Your task to perform on an android device: Go to Reddit.com Image 0: 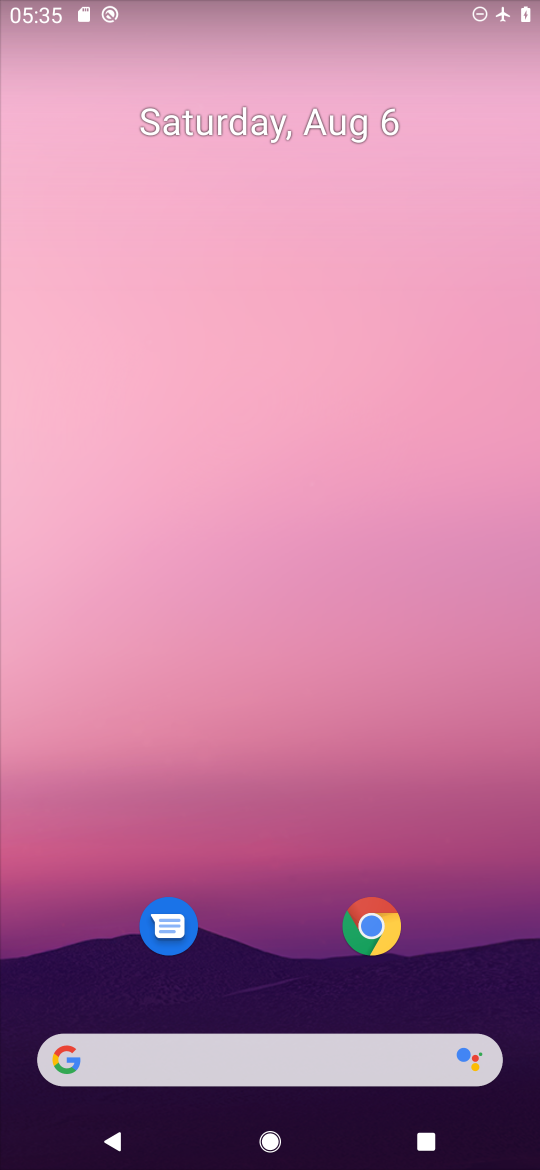
Step 0: click (372, 950)
Your task to perform on an android device: Go to Reddit.com Image 1: 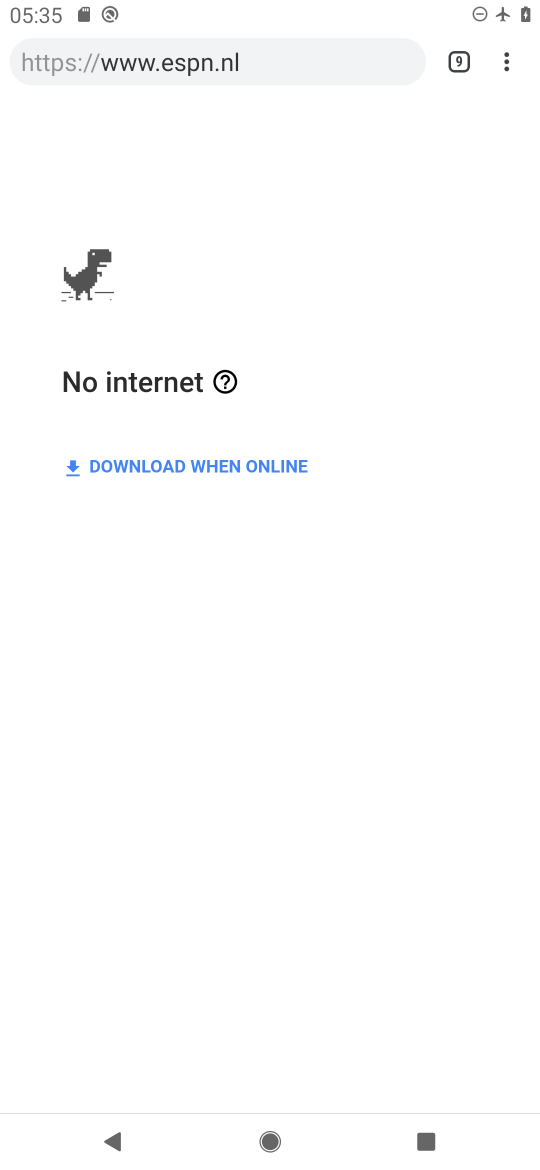
Step 1: click (453, 67)
Your task to perform on an android device: Go to Reddit.com Image 2: 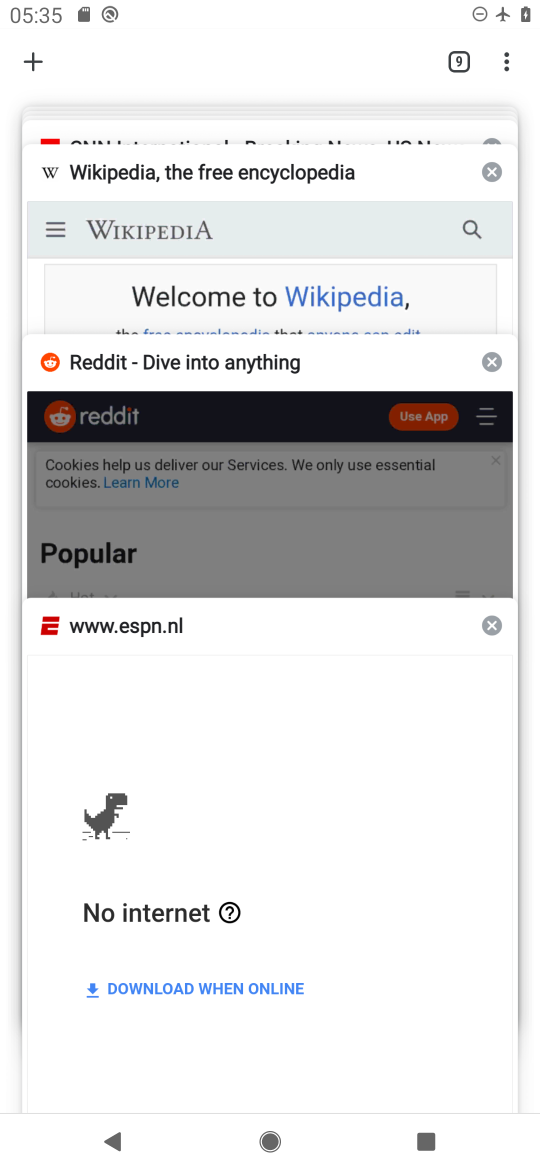
Step 2: click (28, 55)
Your task to perform on an android device: Go to Reddit.com Image 3: 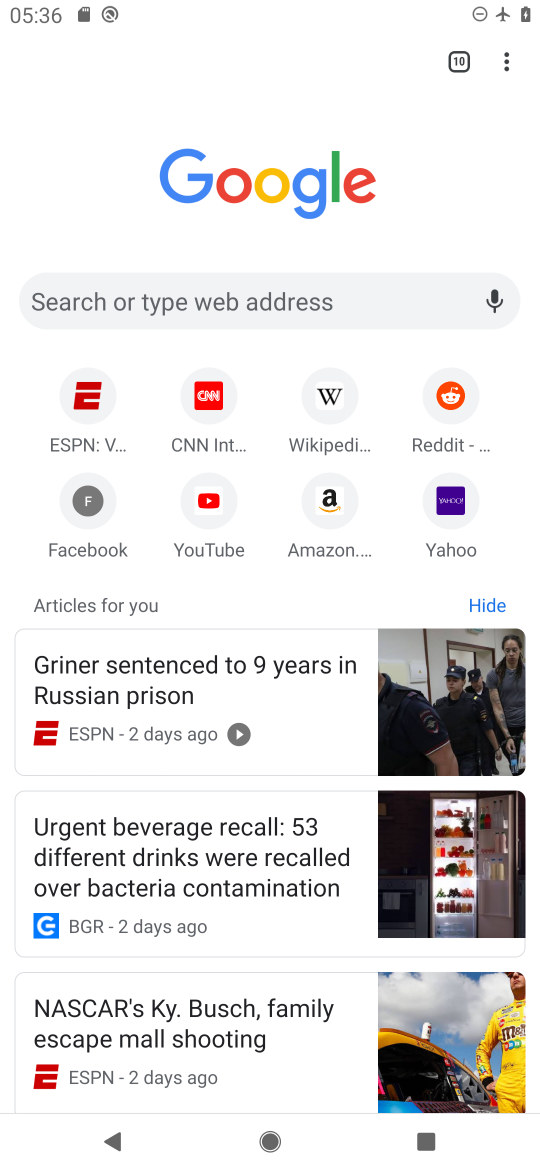
Step 3: click (231, 280)
Your task to perform on an android device: Go to Reddit.com Image 4: 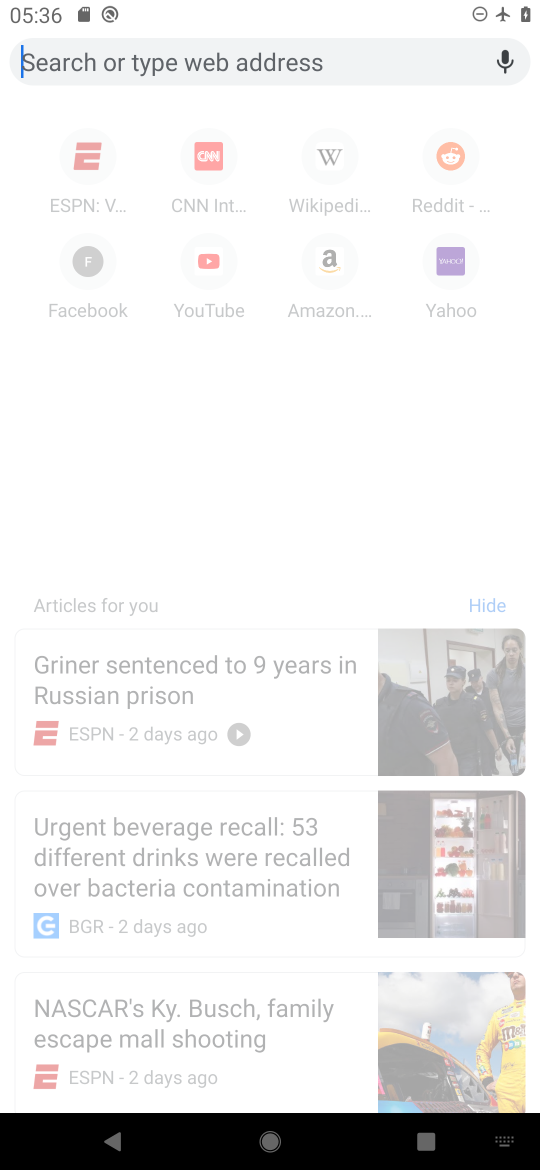
Step 4: type "Reddit.com"
Your task to perform on an android device: Go to Reddit.com Image 5: 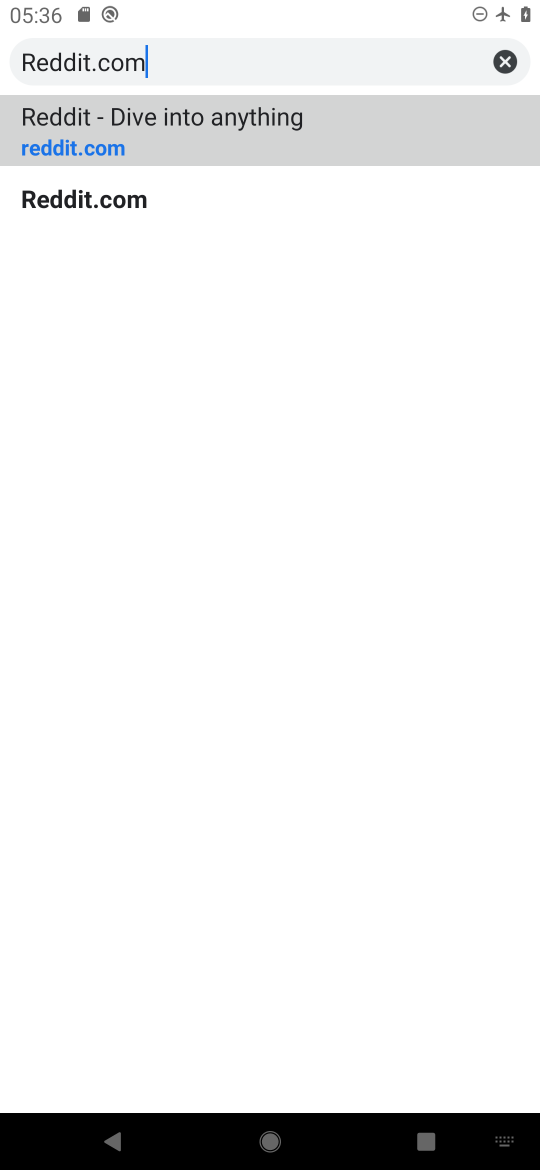
Step 5: type ""
Your task to perform on an android device: Go to Reddit.com Image 6: 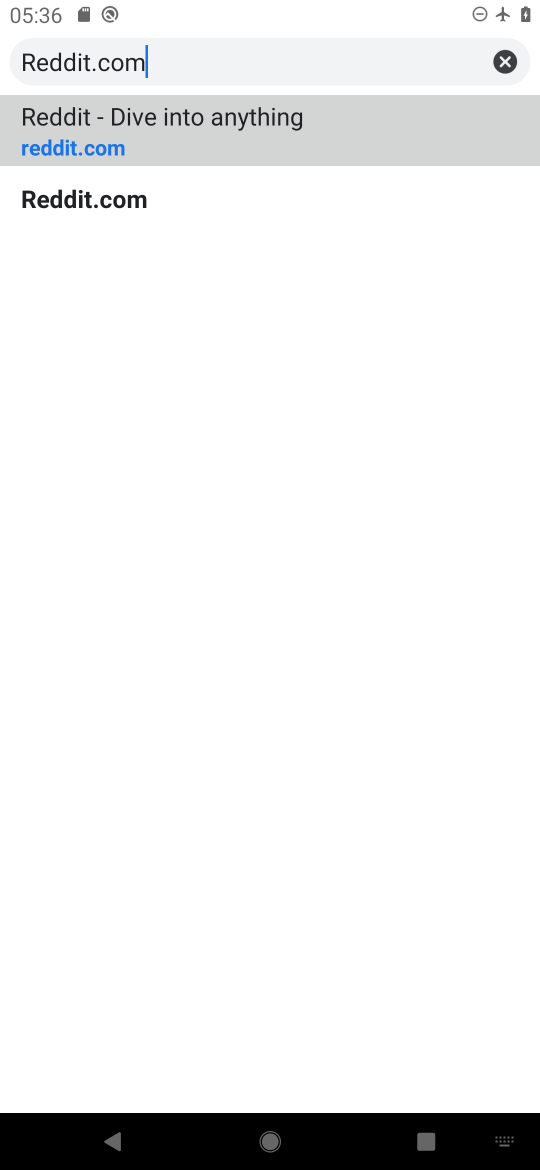
Step 6: click (196, 129)
Your task to perform on an android device: Go to Reddit.com Image 7: 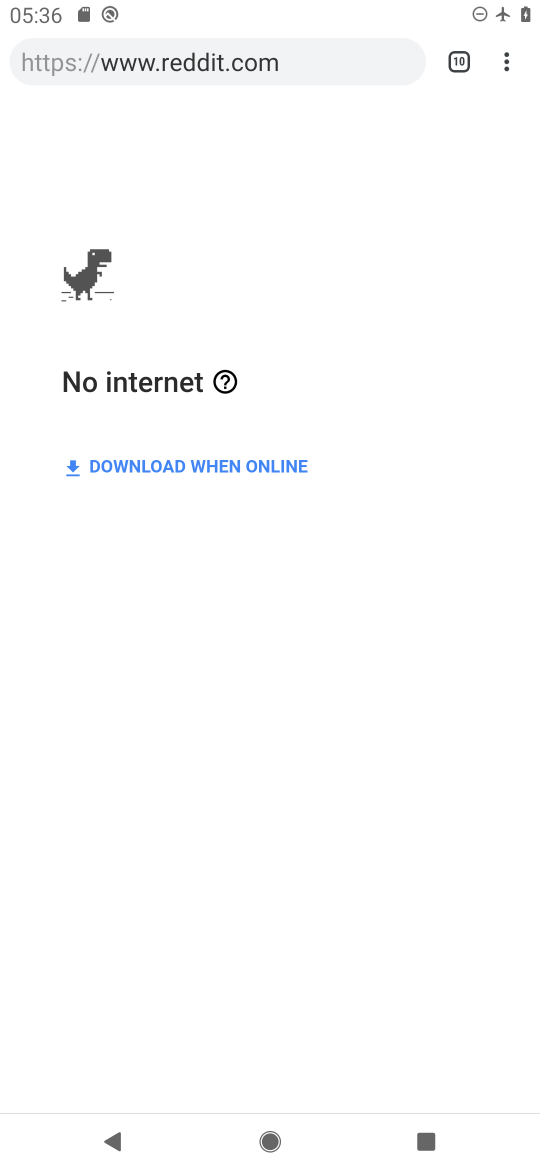
Step 7: task complete